Your task to perform on an android device: find snoozed emails in the gmail app Image 0: 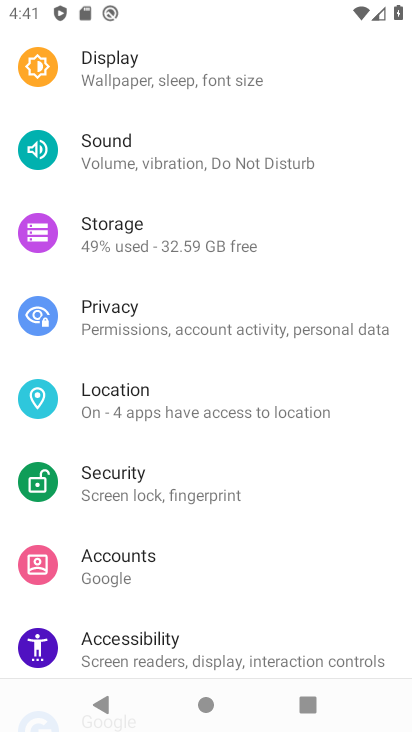
Step 0: press home button
Your task to perform on an android device: find snoozed emails in the gmail app Image 1: 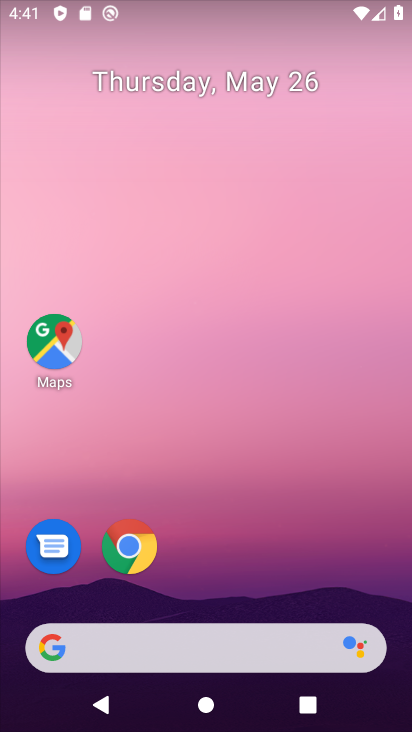
Step 1: drag from (257, 596) to (174, 76)
Your task to perform on an android device: find snoozed emails in the gmail app Image 2: 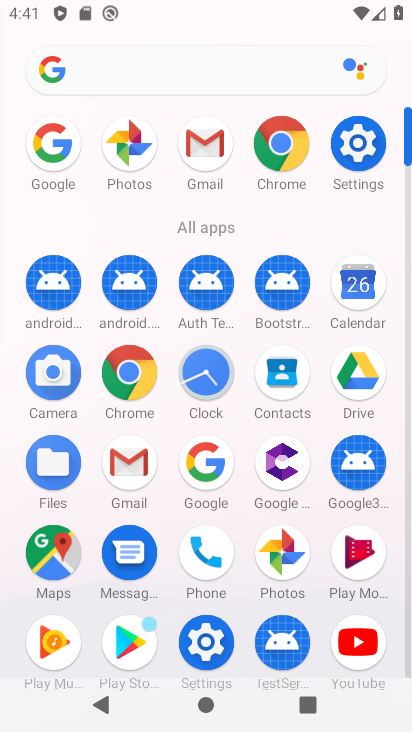
Step 2: click (204, 150)
Your task to perform on an android device: find snoozed emails in the gmail app Image 3: 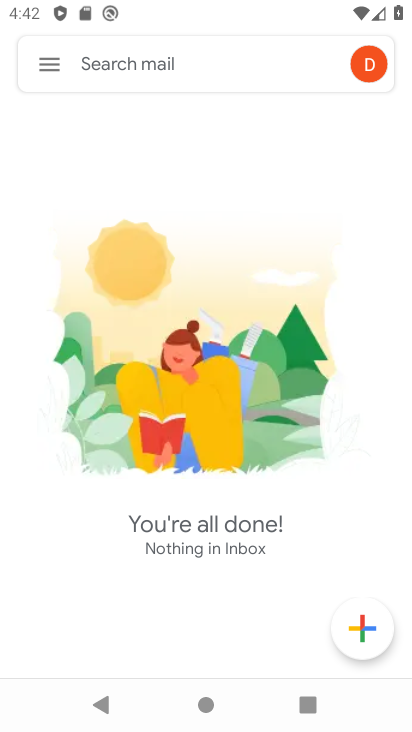
Step 3: click (51, 69)
Your task to perform on an android device: find snoozed emails in the gmail app Image 4: 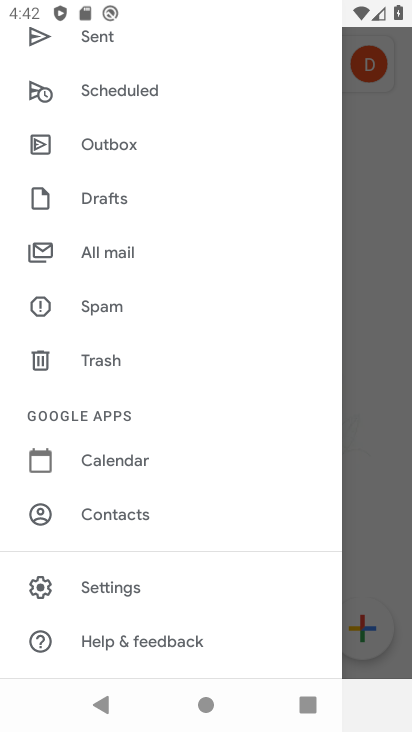
Step 4: drag from (140, 91) to (222, 646)
Your task to perform on an android device: find snoozed emails in the gmail app Image 5: 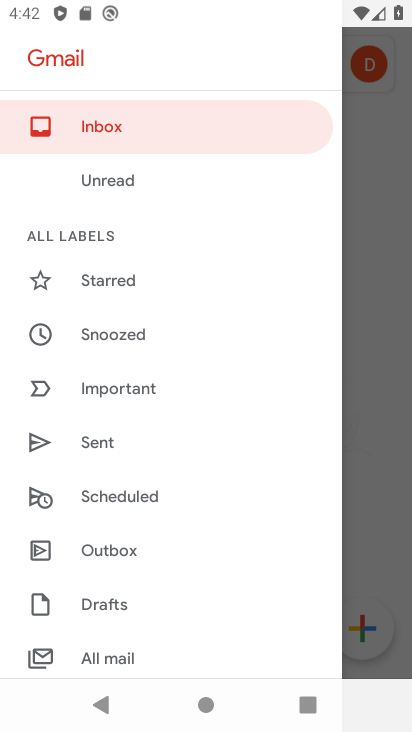
Step 5: click (144, 336)
Your task to perform on an android device: find snoozed emails in the gmail app Image 6: 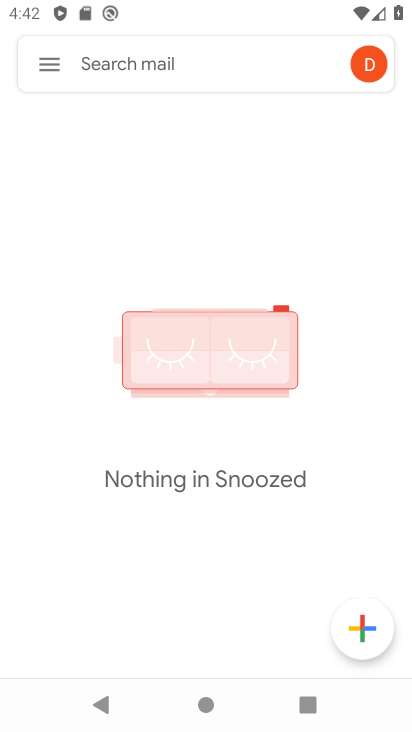
Step 6: task complete